Your task to perform on an android device: see creations saved in the google photos Image 0: 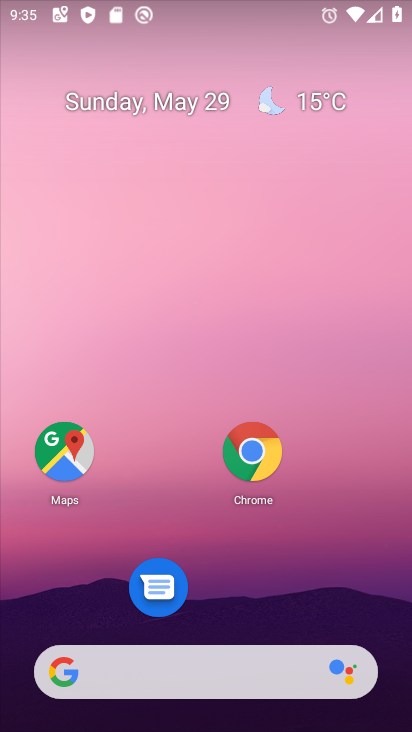
Step 0: drag from (196, 564) to (139, 125)
Your task to perform on an android device: see creations saved in the google photos Image 1: 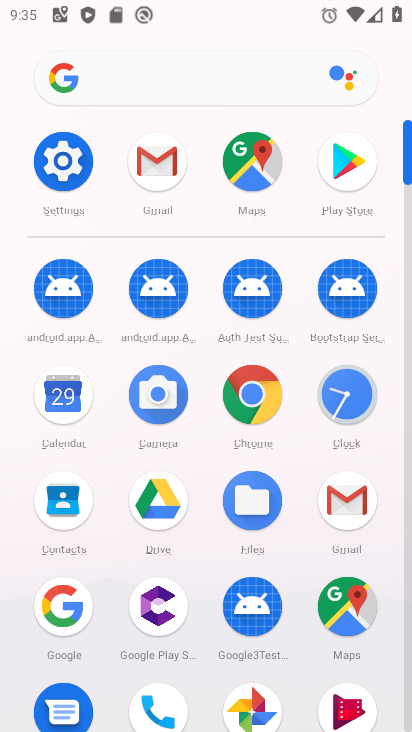
Step 1: click (253, 700)
Your task to perform on an android device: see creations saved in the google photos Image 2: 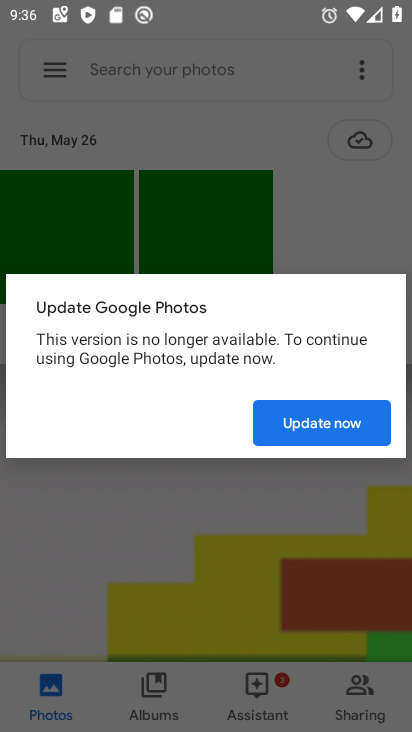
Step 2: click (360, 418)
Your task to perform on an android device: see creations saved in the google photos Image 3: 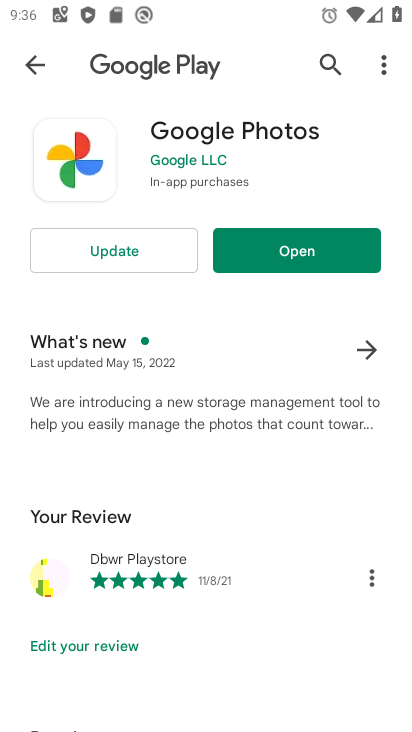
Step 3: click (295, 268)
Your task to perform on an android device: see creations saved in the google photos Image 4: 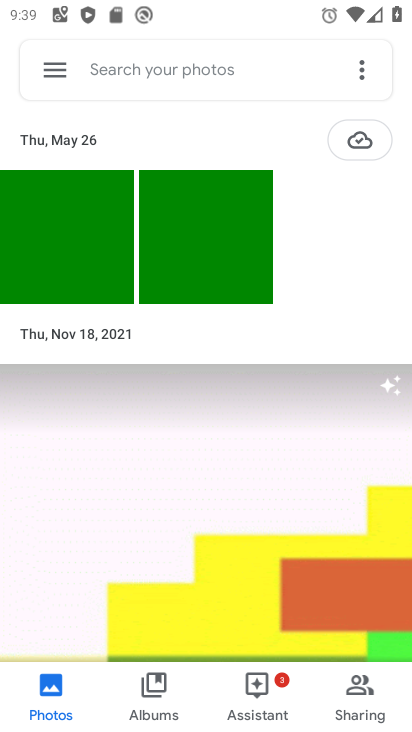
Step 4: task complete